Your task to perform on an android device: Go to battery settings Image 0: 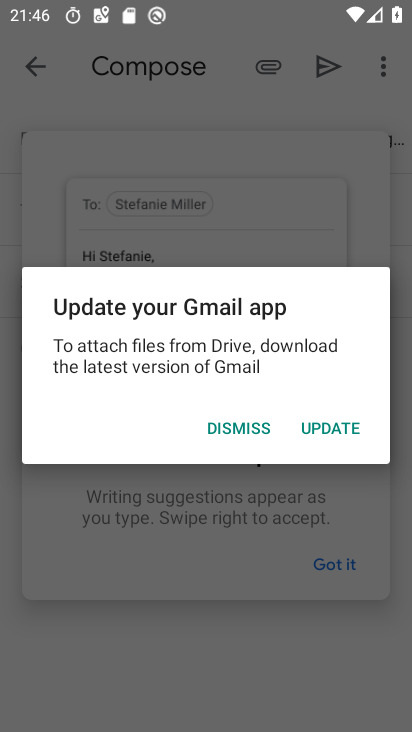
Step 0: press home button
Your task to perform on an android device: Go to battery settings Image 1: 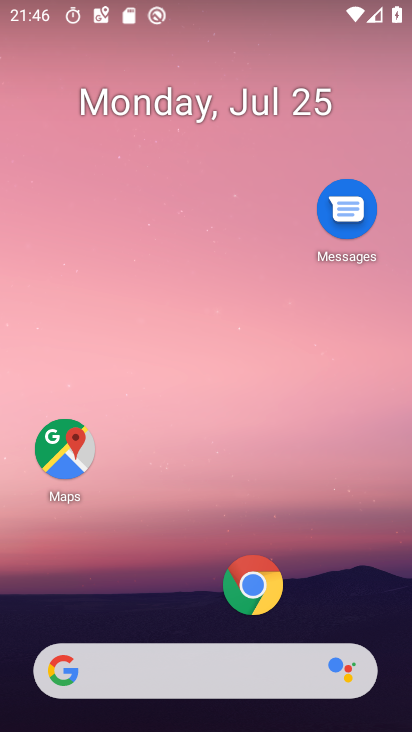
Step 1: drag from (190, 686) to (237, 81)
Your task to perform on an android device: Go to battery settings Image 2: 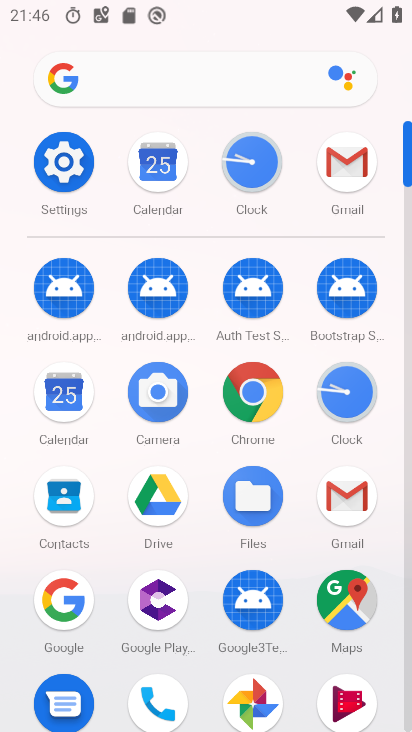
Step 2: click (58, 164)
Your task to perform on an android device: Go to battery settings Image 3: 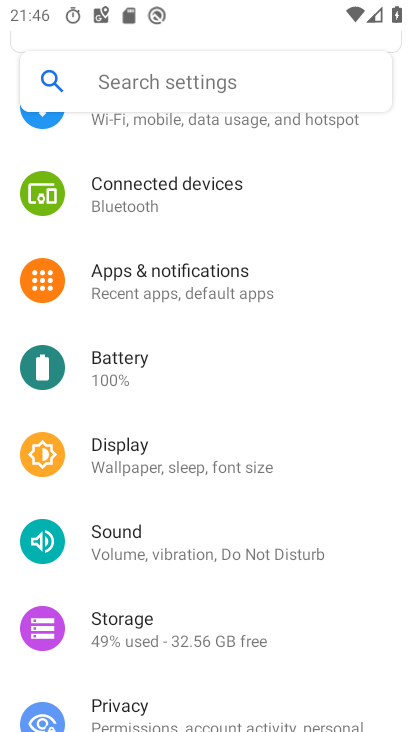
Step 3: click (119, 366)
Your task to perform on an android device: Go to battery settings Image 4: 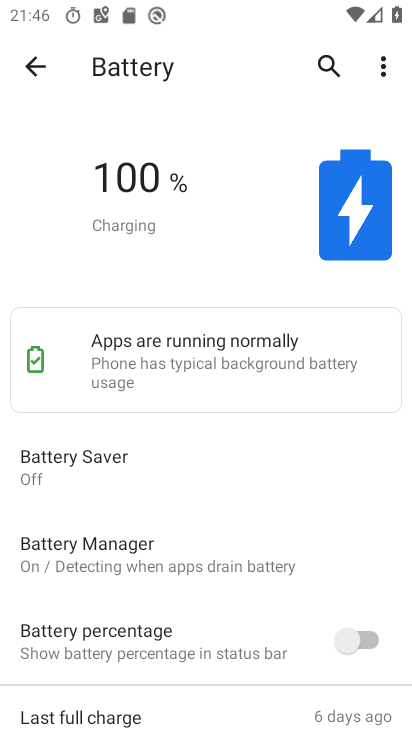
Step 4: task complete